Your task to perform on an android device: What's the weather going to be this weekend? Image 0: 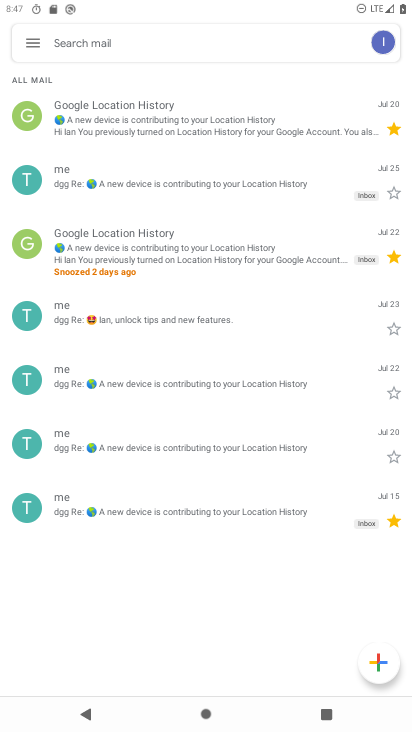
Step 0: press home button
Your task to perform on an android device: What's the weather going to be this weekend? Image 1: 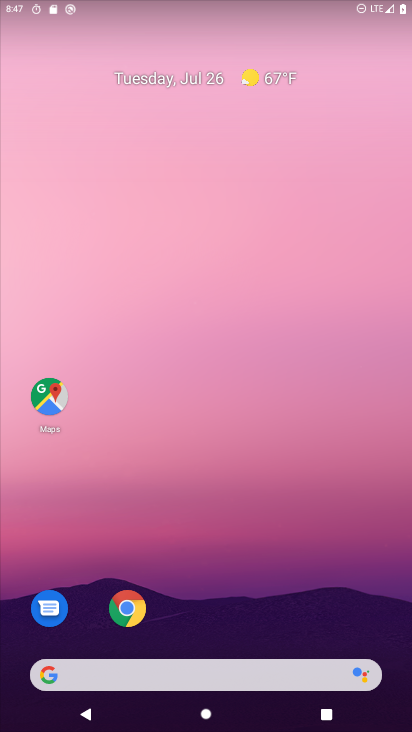
Step 1: click (168, 665)
Your task to perform on an android device: What's the weather going to be this weekend? Image 2: 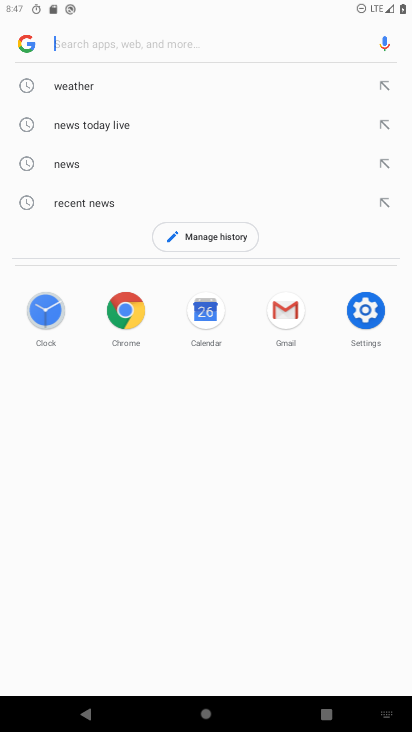
Step 2: click (85, 79)
Your task to perform on an android device: What's the weather going to be this weekend? Image 3: 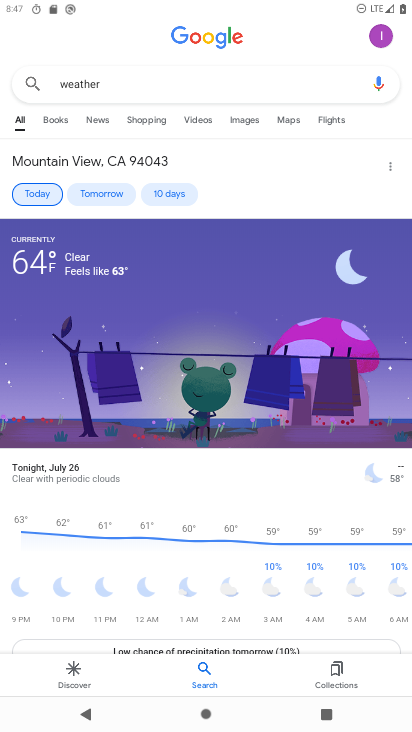
Step 3: click (167, 195)
Your task to perform on an android device: What's the weather going to be this weekend? Image 4: 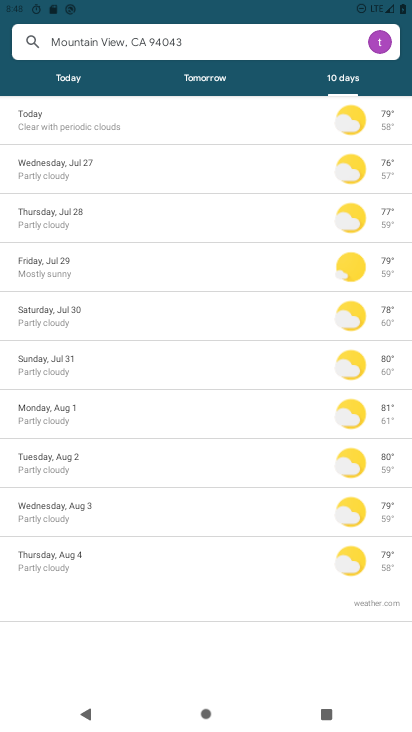
Step 4: task complete